Your task to perform on an android device: change your default location settings in chrome Image 0: 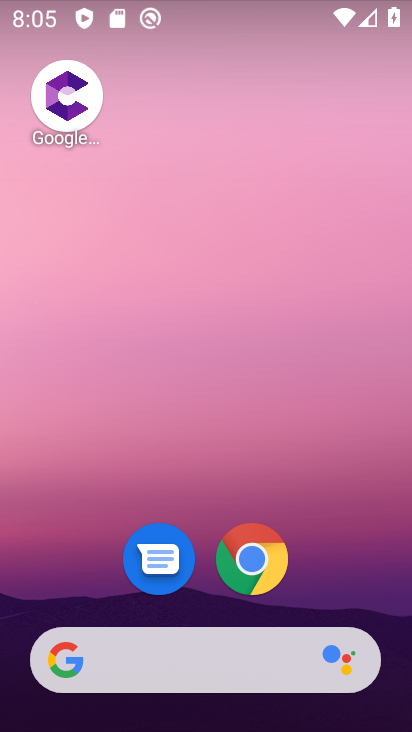
Step 0: click (269, 561)
Your task to perform on an android device: change your default location settings in chrome Image 1: 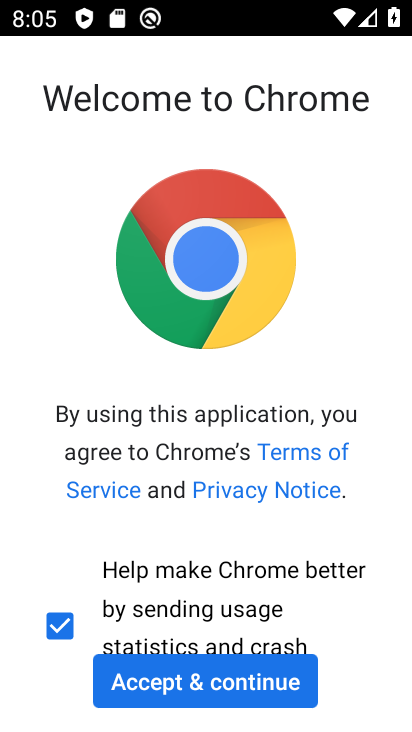
Step 1: click (238, 710)
Your task to perform on an android device: change your default location settings in chrome Image 2: 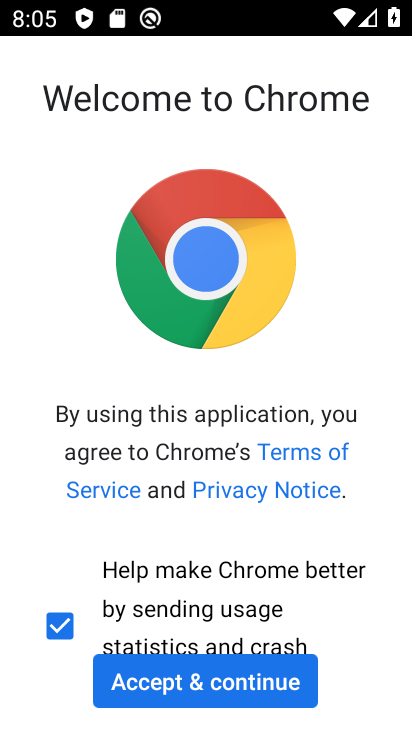
Step 2: click (230, 699)
Your task to perform on an android device: change your default location settings in chrome Image 3: 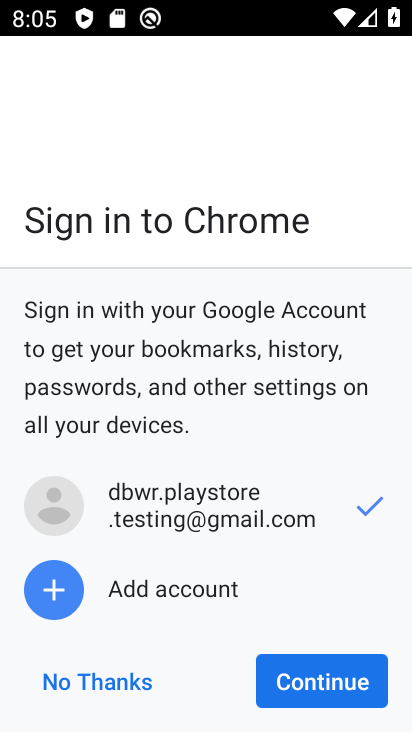
Step 3: click (286, 672)
Your task to perform on an android device: change your default location settings in chrome Image 4: 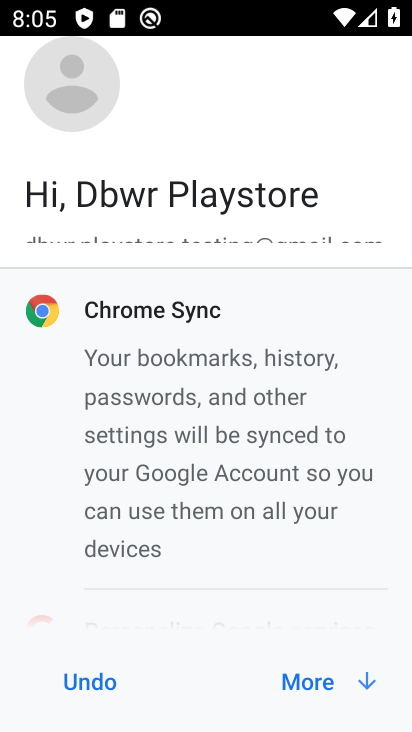
Step 4: click (286, 672)
Your task to perform on an android device: change your default location settings in chrome Image 5: 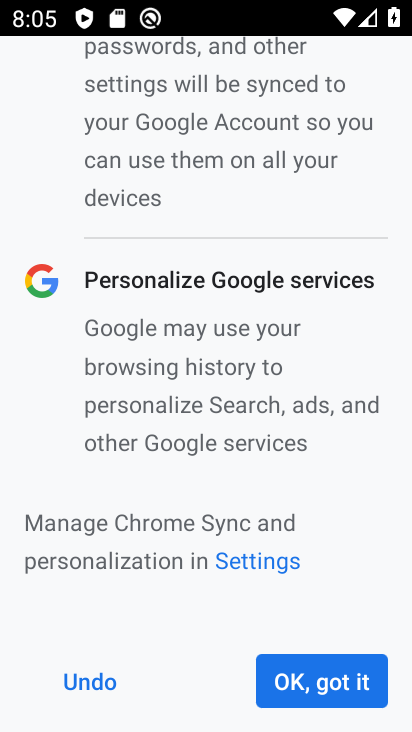
Step 5: click (309, 672)
Your task to perform on an android device: change your default location settings in chrome Image 6: 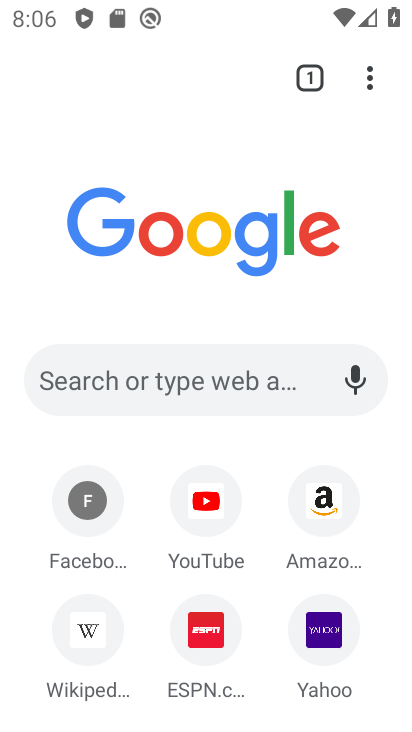
Step 6: drag from (371, 78) to (181, 616)
Your task to perform on an android device: change your default location settings in chrome Image 7: 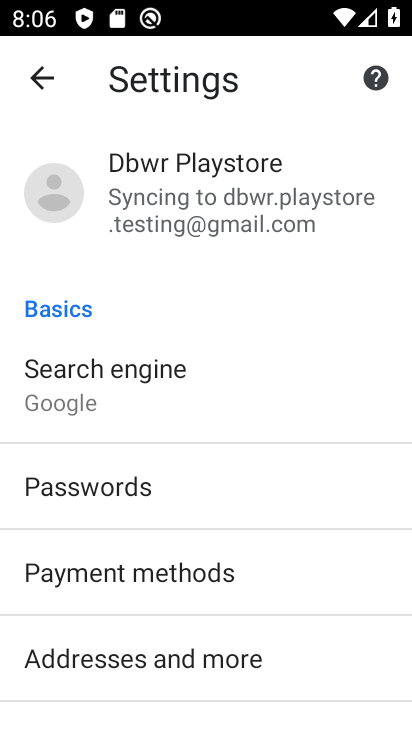
Step 7: drag from (148, 623) to (151, 68)
Your task to perform on an android device: change your default location settings in chrome Image 8: 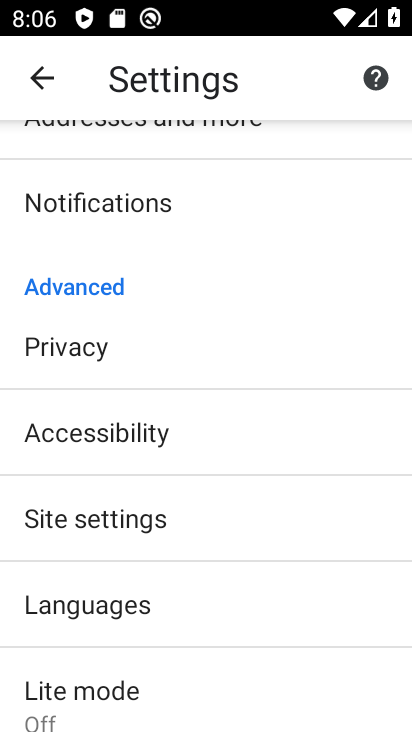
Step 8: click (182, 516)
Your task to perform on an android device: change your default location settings in chrome Image 9: 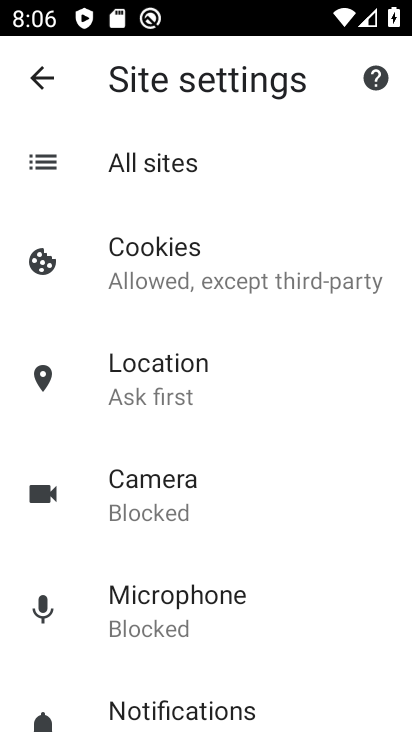
Step 9: click (205, 393)
Your task to perform on an android device: change your default location settings in chrome Image 10: 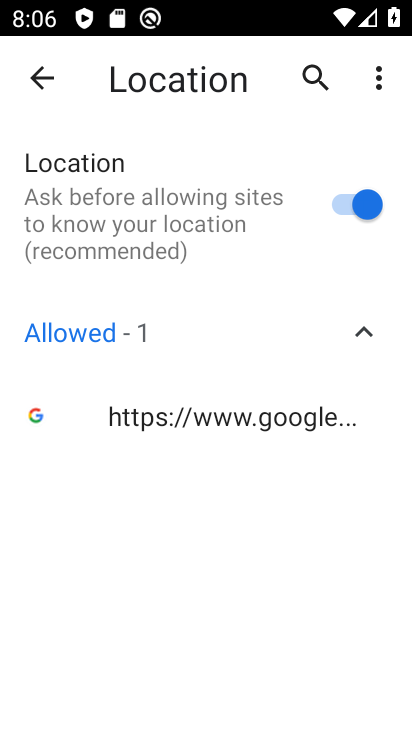
Step 10: click (357, 213)
Your task to perform on an android device: change your default location settings in chrome Image 11: 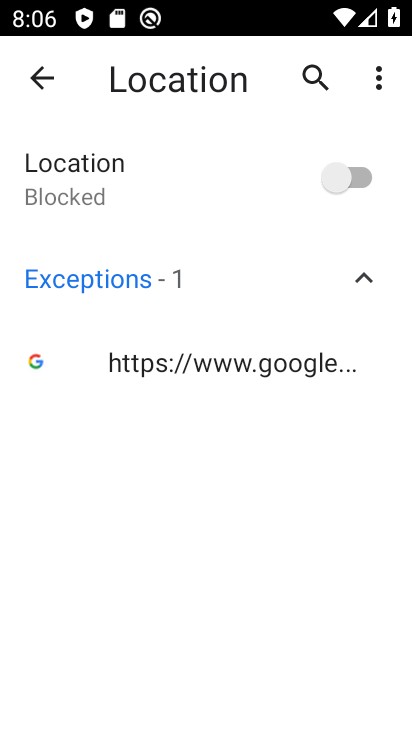
Step 11: task complete